Your task to perform on an android device: Open Yahoo.com Image 0: 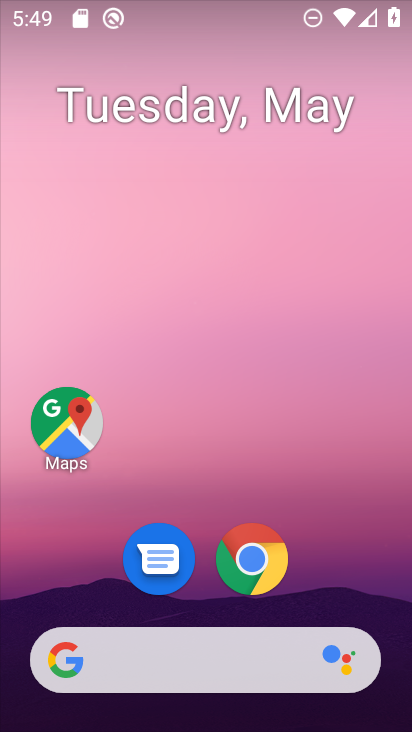
Step 0: click (248, 583)
Your task to perform on an android device: Open Yahoo.com Image 1: 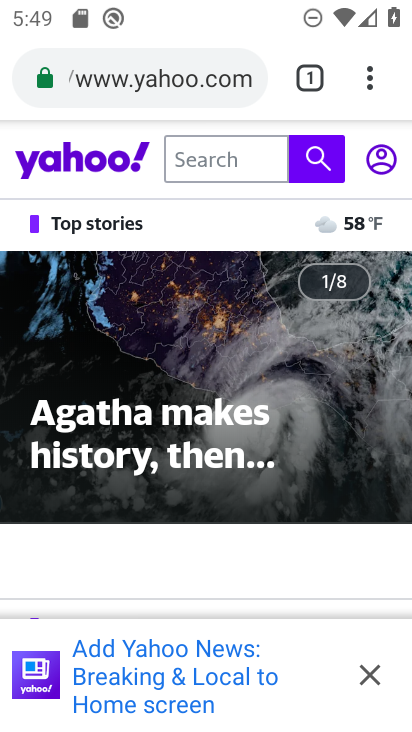
Step 1: task complete